Your task to perform on an android device: turn on showing notifications on the lock screen Image 0: 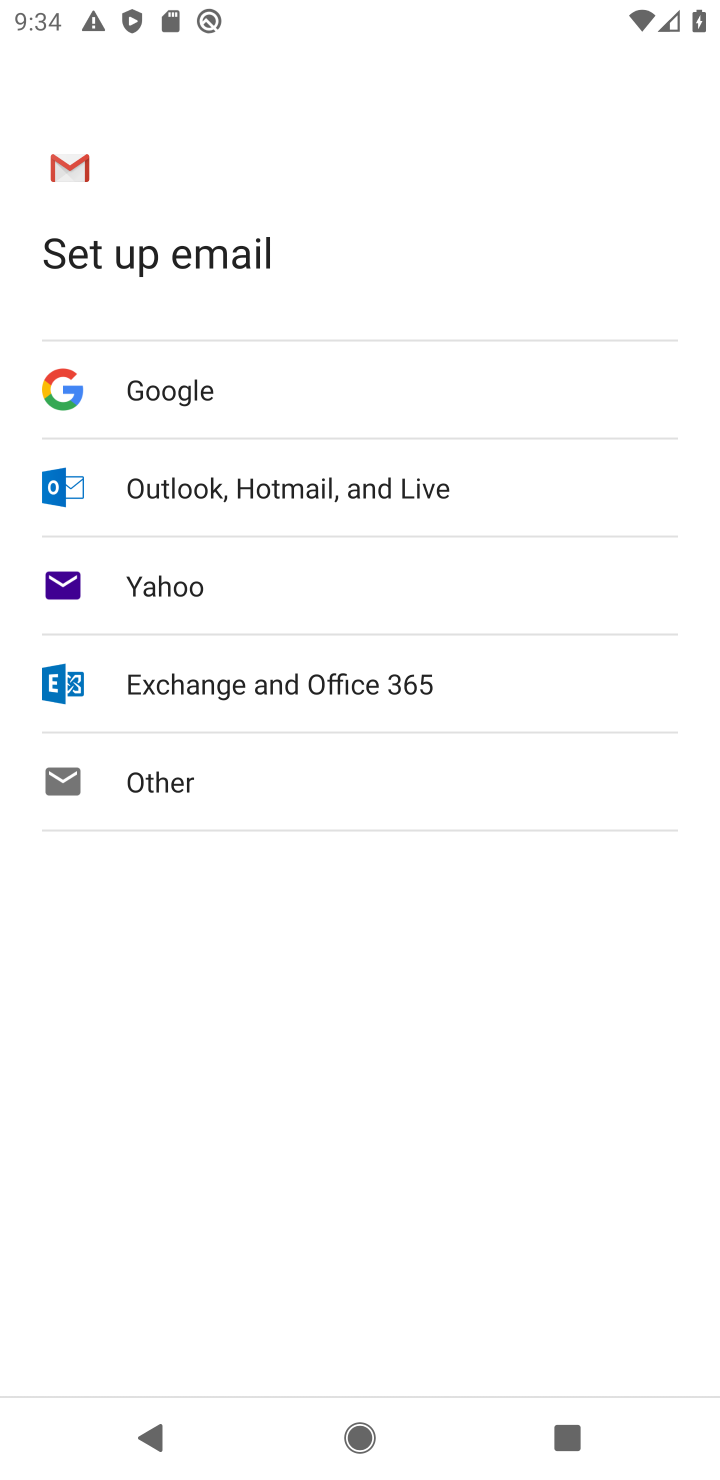
Step 0: press home button
Your task to perform on an android device: turn on showing notifications on the lock screen Image 1: 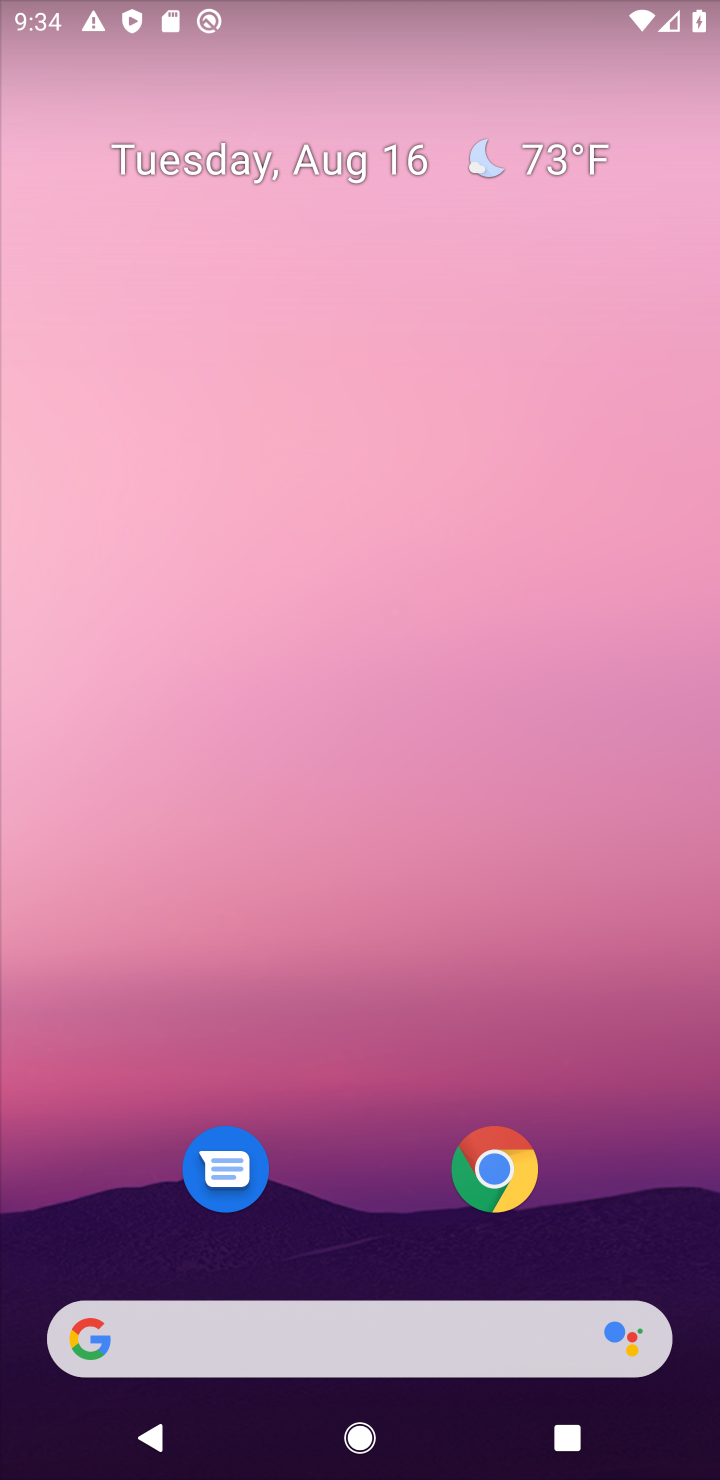
Step 1: drag from (328, 852) to (328, 663)
Your task to perform on an android device: turn on showing notifications on the lock screen Image 2: 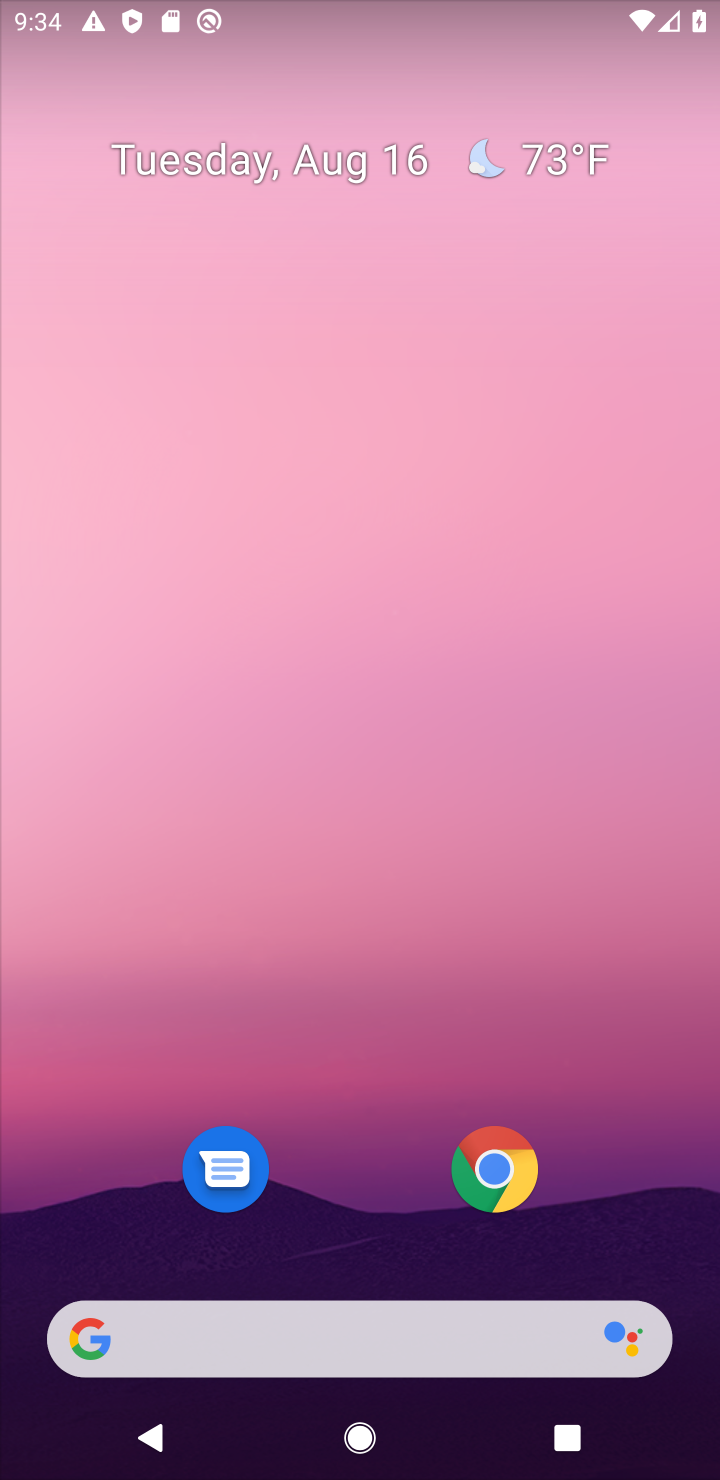
Step 2: drag from (372, 1025) to (390, 334)
Your task to perform on an android device: turn on showing notifications on the lock screen Image 3: 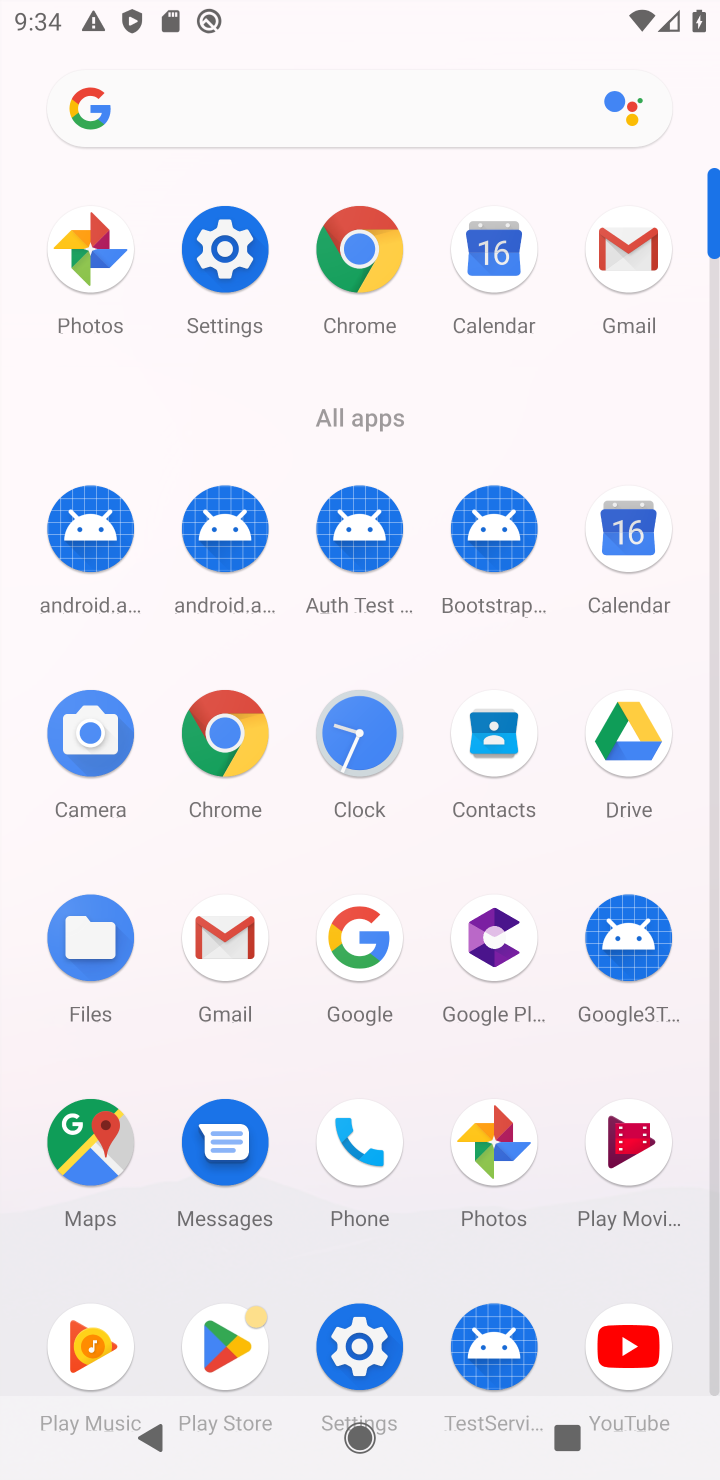
Step 3: click (217, 248)
Your task to perform on an android device: turn on showing notifications on the lock screen Image 4: 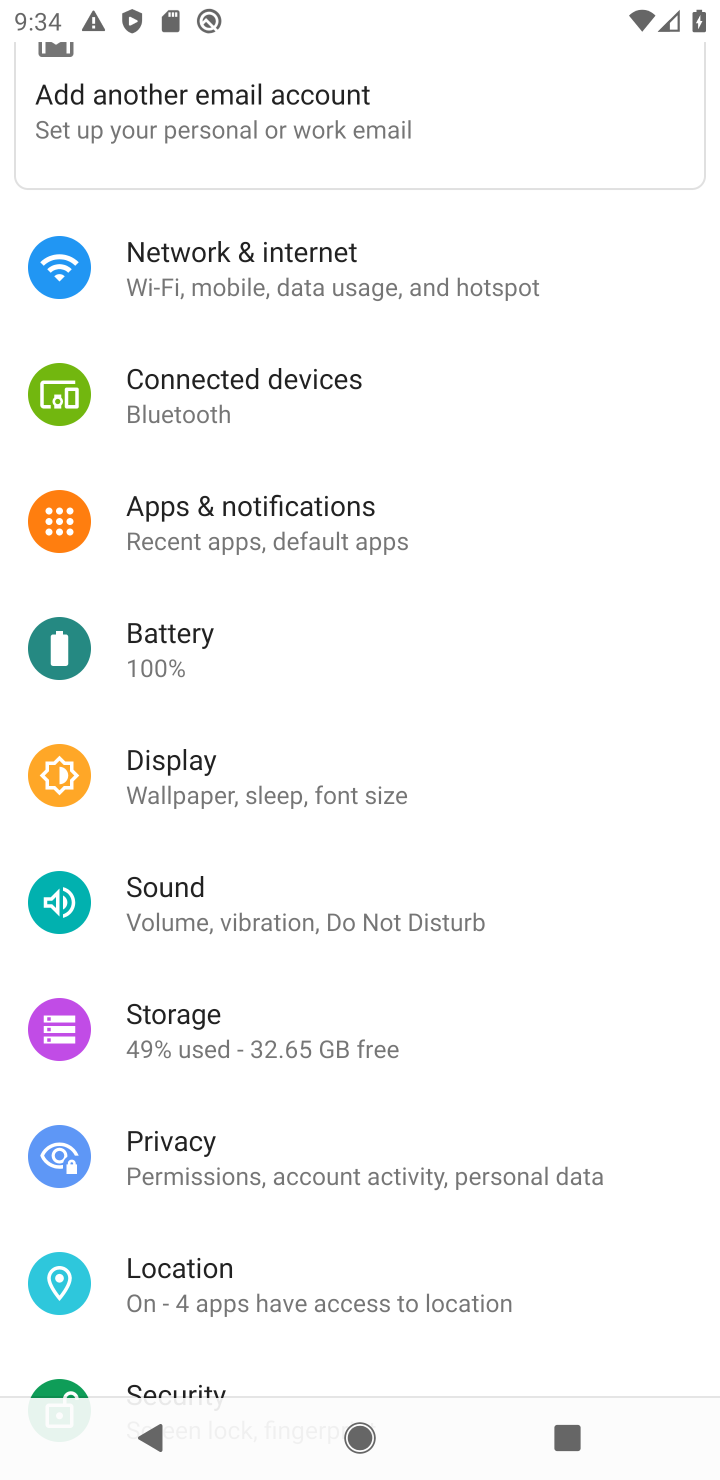
Step 4: click (254, 529)
Your task to perform on an android device: turn on showing notifications on the lock screen Image 5: 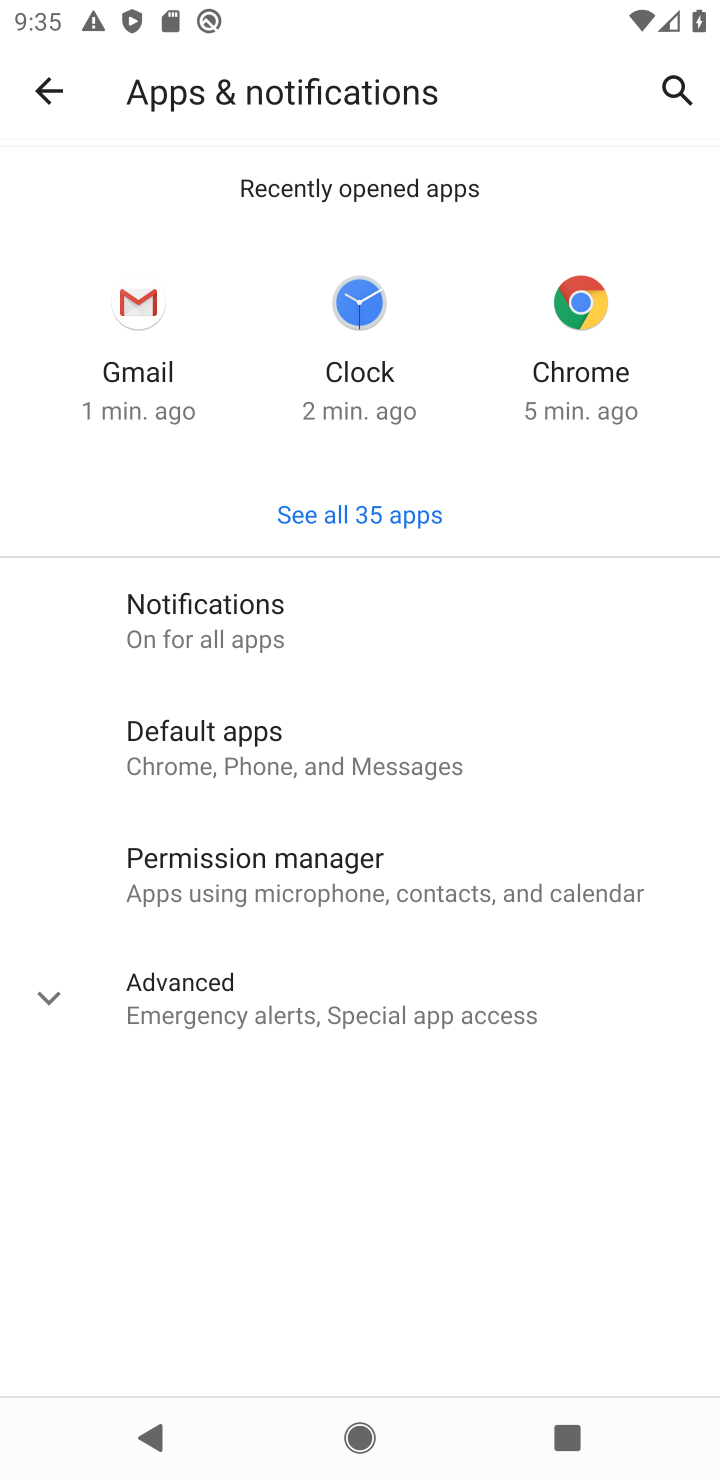
Step 5: click (186, 634)
Your task to perform on an android device: turn on showing notifications on the lock screen Image 6: 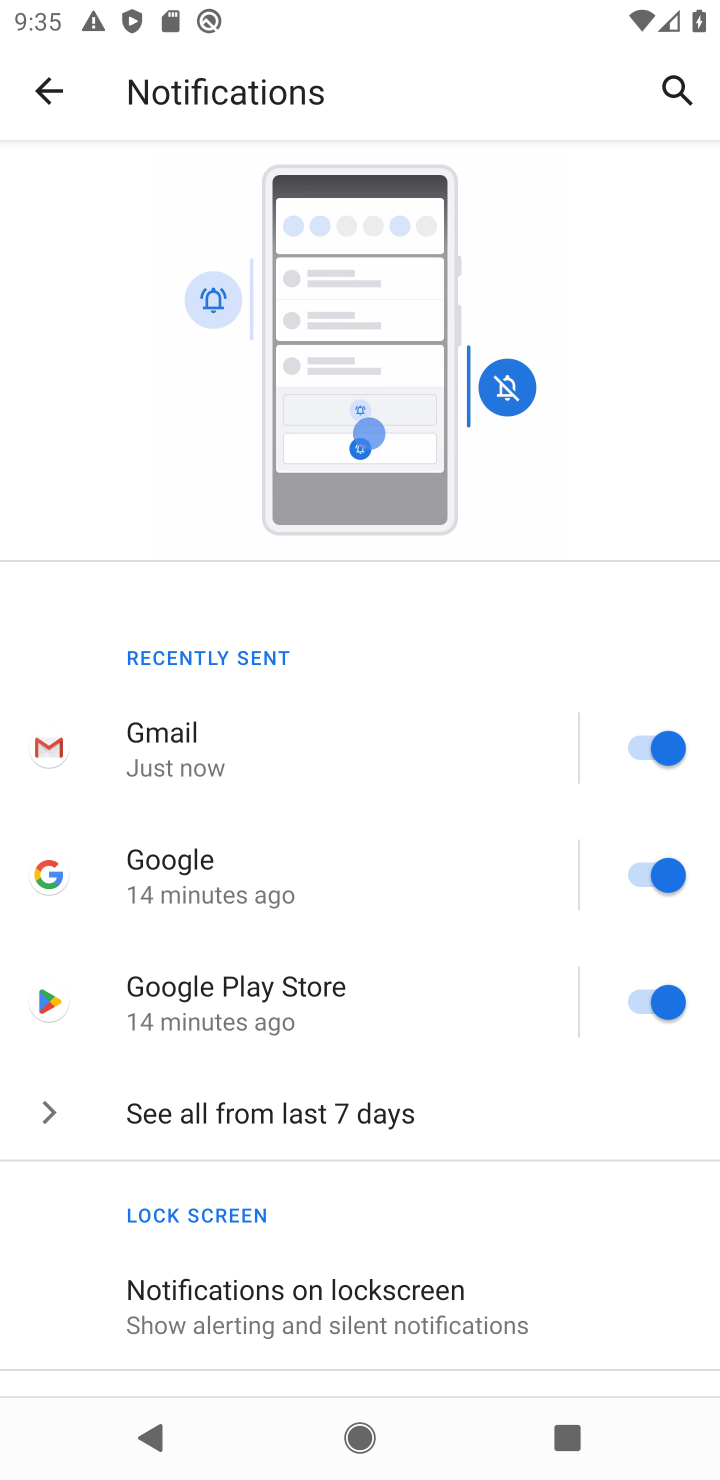
Step 6: click (302, 1307)
Your task to perform on an android device: turn on showing notifications on the lock screen Image 7: 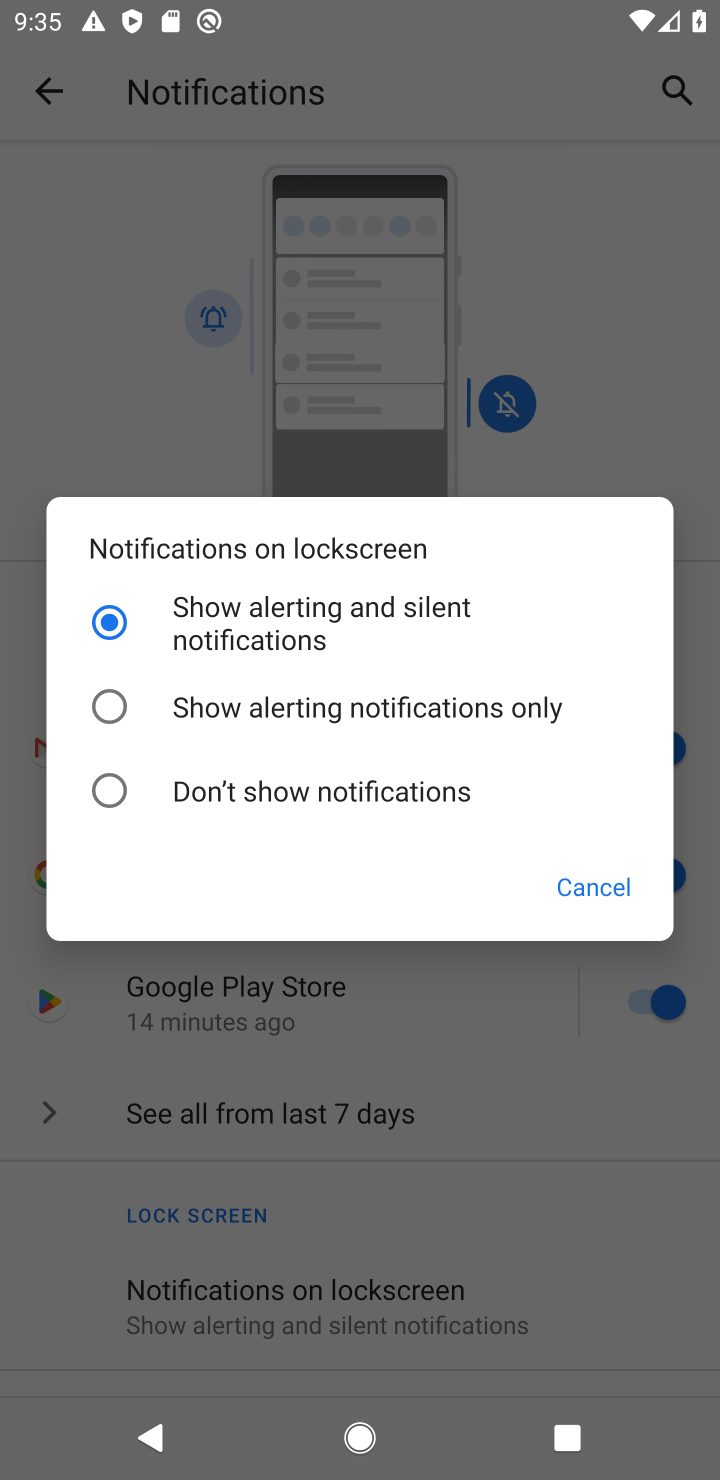
Step 7: task complete